Your task to perform on an android device: Search for logitech g910 on amazon, select the first entry, and add it to the cart. Image 0: 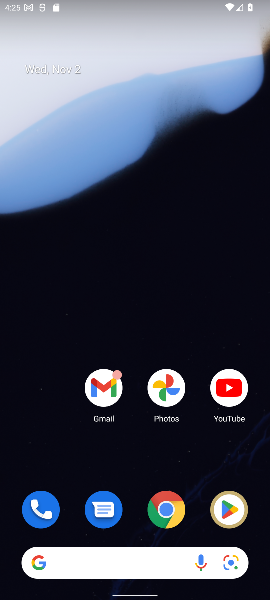
Step 0: click (125, 563)
Your task to perform on an android device: Search for logitech g910 on amazon, select the first entry, and add it to the cart. Image 1: 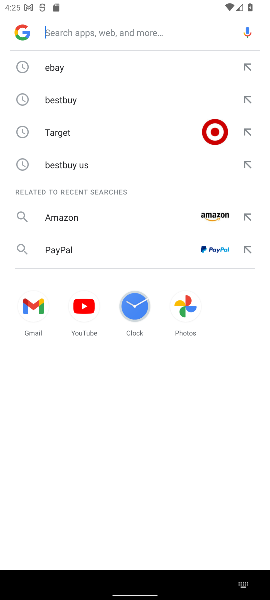
Step 1: click (64, 212)
Your task to perform on an android device: Search for logitech g910 on amazon, select the first entry, and add it to the cart. Image 2: 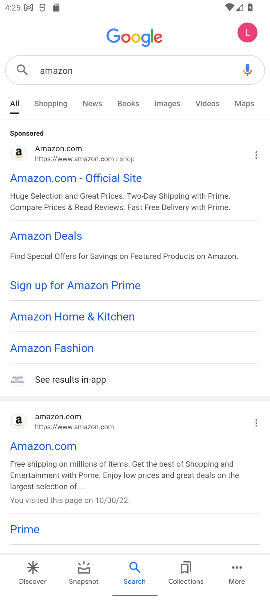
Step 2: click (28, 440)
Your task to perform on an android device: Search for logitech g910 on amazon, select the first entry, and add it to the cart. Image 3: 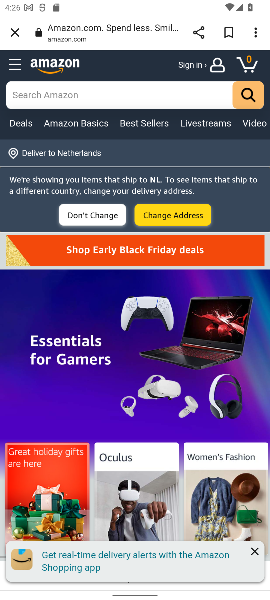
Step 3: click (125, 88)
Your task to perform on an android device: Search for logitech g910 on amazon, select the first entry, and add it to the cart. Image 4: 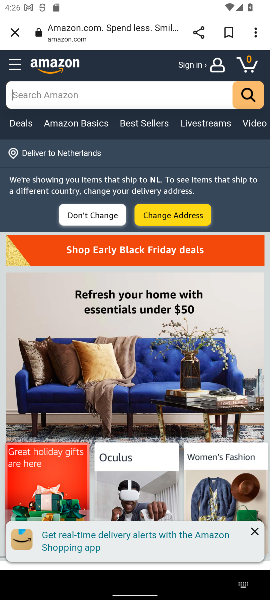
Step 4: type "logitech g910"
Your task to perform on an android device: Search for logitech g910 on amazon, select the first entry, and add it to the cart. Image 5: 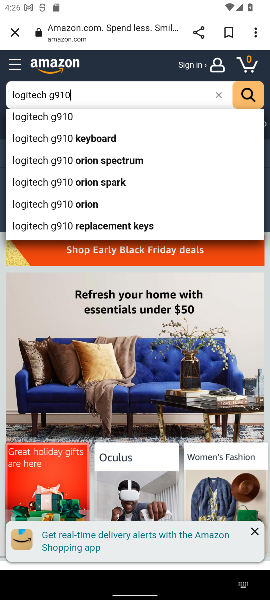
Step 5: click (64, 115)
Your task to perform on an android device: Search for logitech g910 on amazon, select the first entry, and add it to the cart. Image 6: 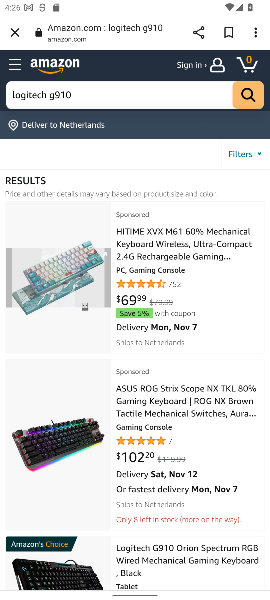
Step 6: click (159, 246)
Your task to perform on an android device: Search for logitech g910 on amazon, select the first entry, and add it to the cart. Image 7: 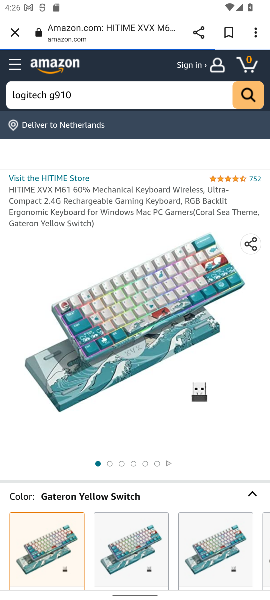
Step 7: drag from (194, 440) to (173, 191)
Your task to perform on an android device: Search for logitech g910 on amazon, select the first entry, and add it to the cart. Image 8: 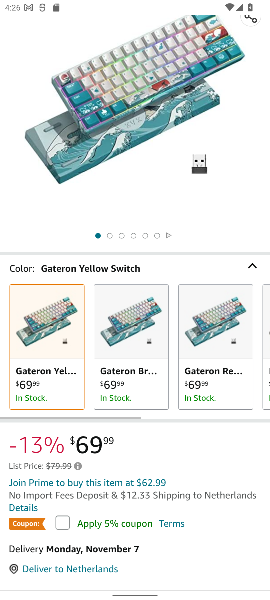
Step 8: drag from (201, 459) to (176, 151)
Your task to perform on an android device: Search for logitech g910 on amazon, select the first entry, and add it to the cart. Image 9: 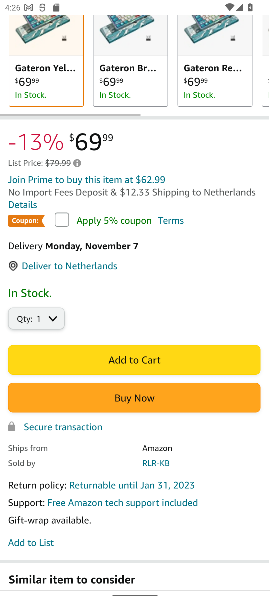
Step 9: drag from (204, 468) to (198, 308)
Your task to perform on an android device: Search for logitech g910 on amazon, select the first entry, and add it to the cart. Image 10: 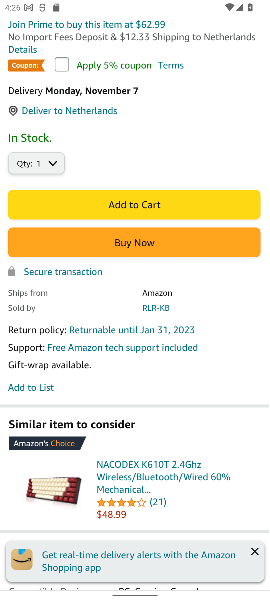
Step 10: click (127, 207)
Your task to perform on an android device: Search for logitech g910 on amazon, select the first entry, and add it to the cart. Image 11: 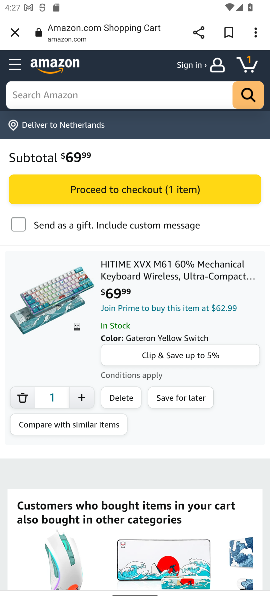
Step 11: task complete